Your task to perform on an android device: turn notification dots on Image 0: 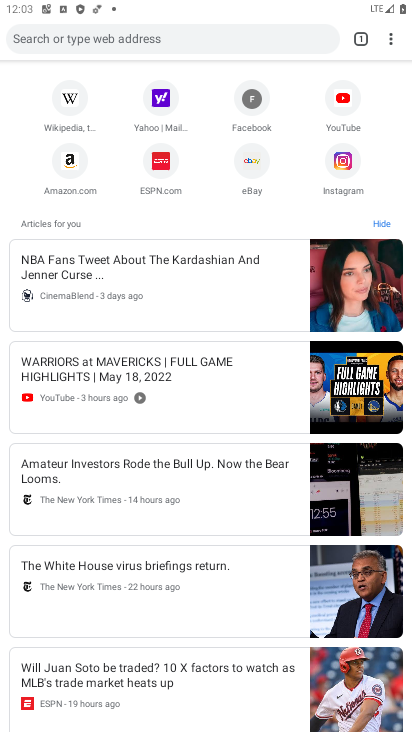
Step 0: press home button
Your task to perform on an android device: turn notification dots on Image 1: 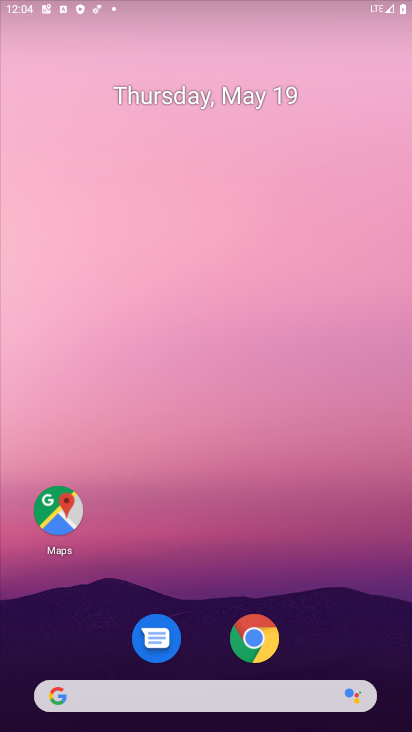
Step 1: drag from (364, 652) to (364, 137)
Your task to perform on an android device: turn notification dots on Image 2: 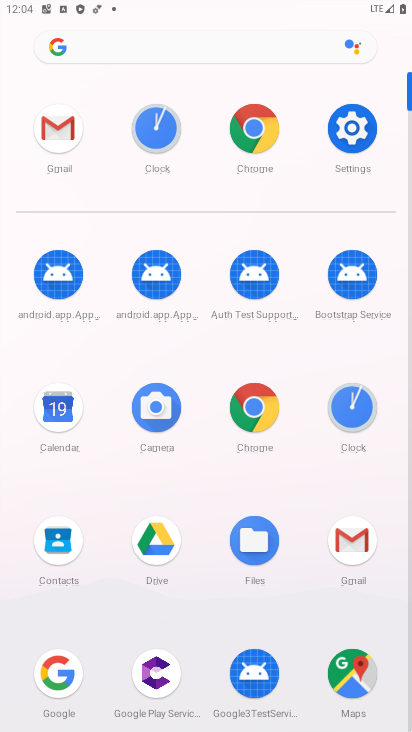
Step 2: click (352, 125)
Your task to perform on an android device: turn notification dots on Image 3: 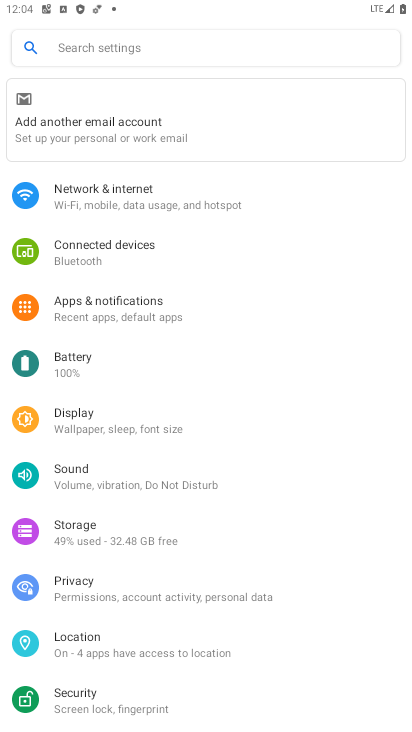
Step 3: click (161, 308)
Your task to perform on an android device: turn notification dots on Image 4: 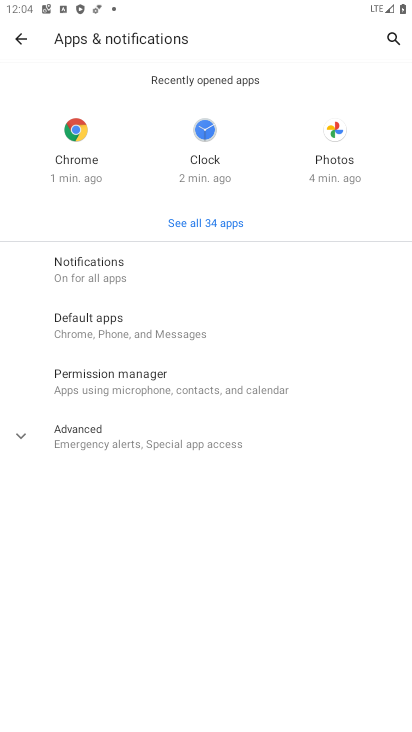
Step 4: click (143, 283)
Your task to perform on an android device: turn notification dots on Image 5: 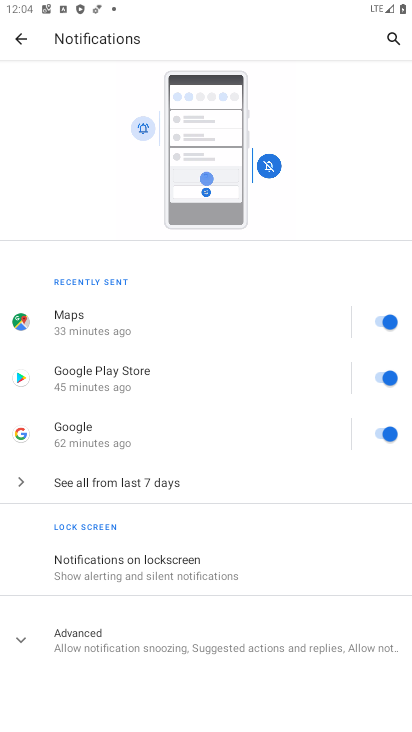
Step 5: drag from (139, 651) to (167, 153)
Your task to perform on an android device: turn notification dots on Image 6: 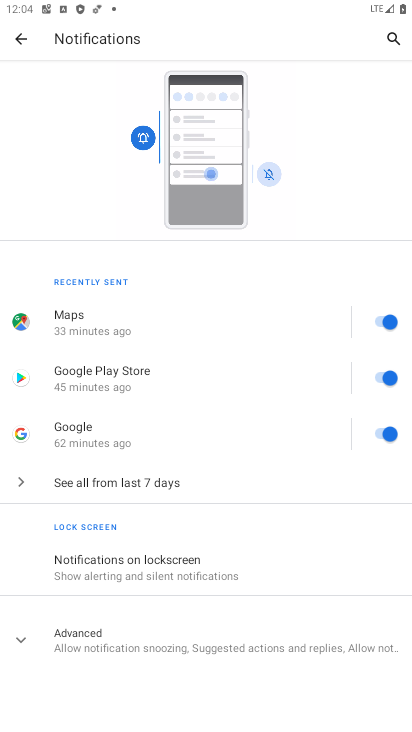
Step 6: click (75, 645)
Your task to perform on an android device: turn notification dots on Image 7: 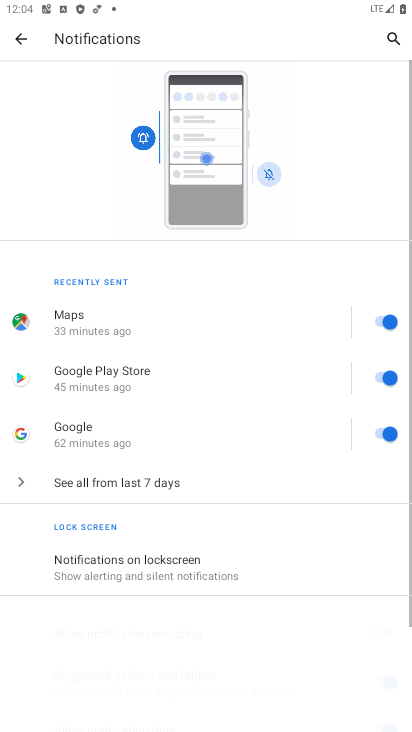
Step 7: task complete